Your task to perform on an android device: check out phone information Image 0: 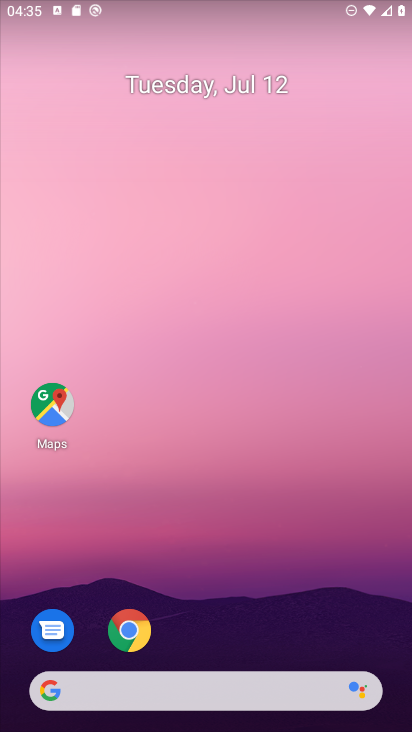
Step 0: drag from (339, 622) to (312, 140)
Your task to perform on an android device: check out phone information Image 1: 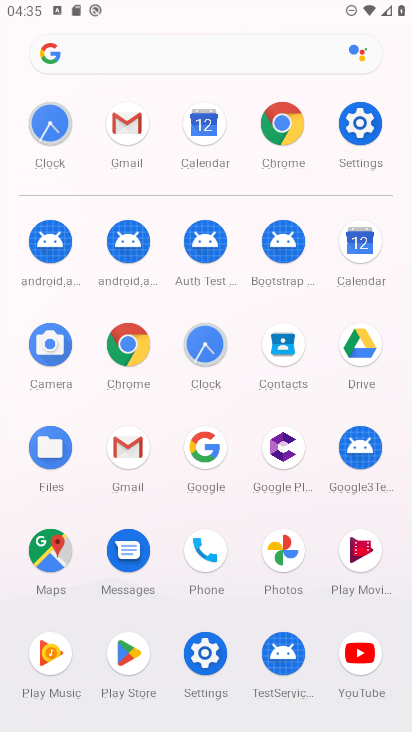
Step 1: click (207, 651)
Your task to perform on an android device: check out phone information Image 2: 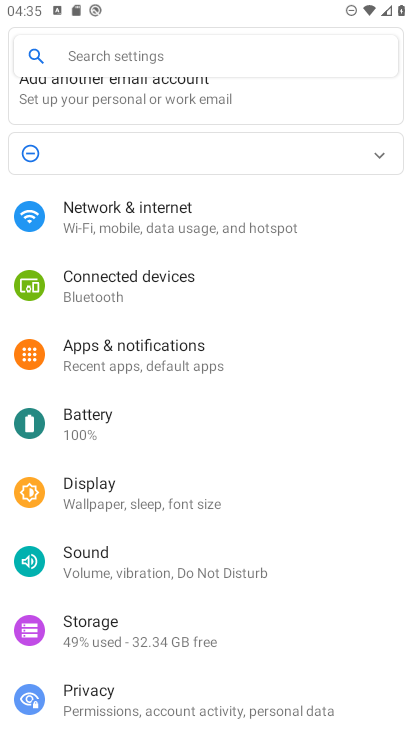
Step 2: drag from (320, 694) to (261, 180)
Your task to perform on an android device: check out phone information Image 3: 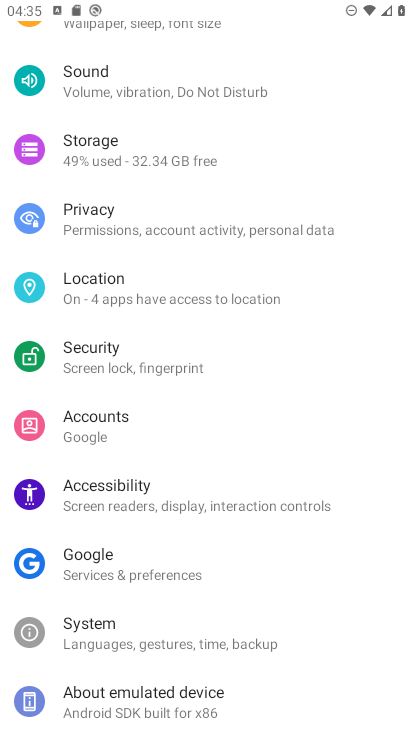
Step 3: drag from (193, 706) to (209, 429)
Your task to perform on an android device: check out phone information Image 4: 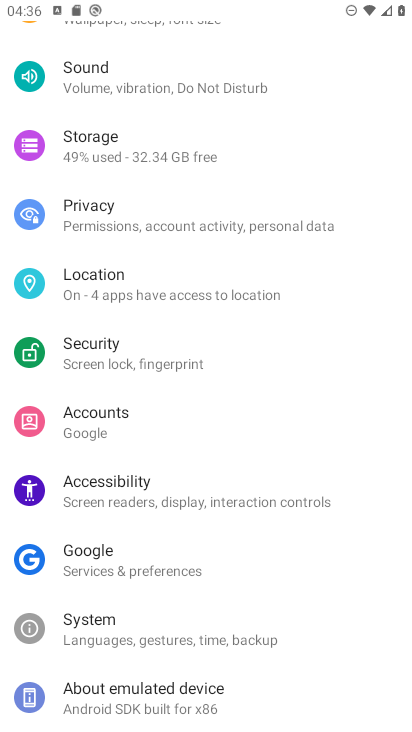
Step 4: click (121, 690)
Your task to perform on an android device: check out phone information Image 5: 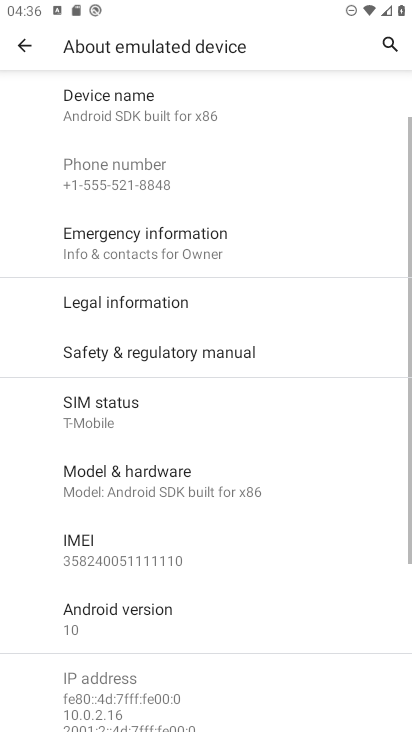
Step 5: task complete